Your task to perform on an android device: Set the phone to "Do not disturb". Image 0: 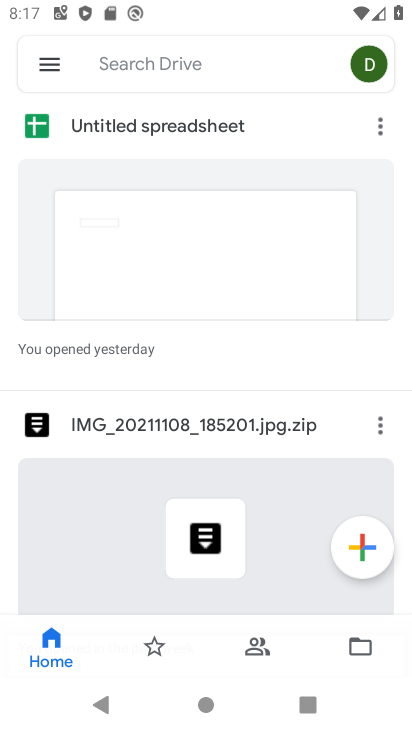
Step 0: press home button
Your task to perform on an android device: Set the phone to "Do not disturb". Image 1: 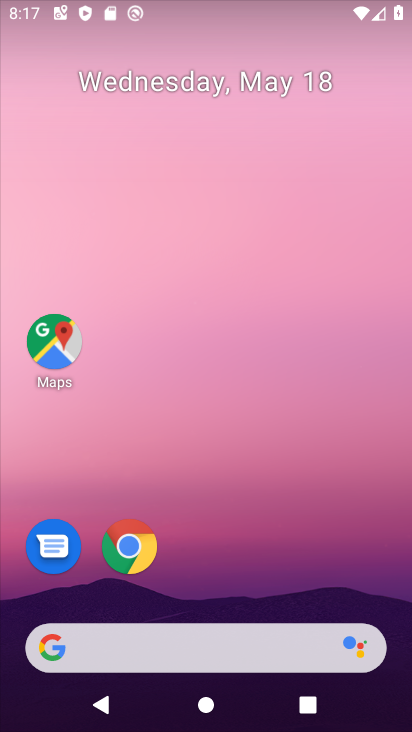
Step 1: drag from (228, 690) to (311, 204)
Your task to perform on an android device: Set the phone to "Do not disturb". Image 2: 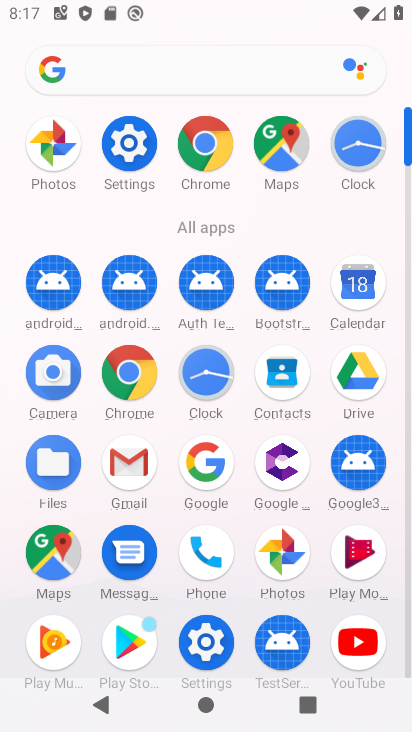
Step 2: click (127, 168)
Your task to perform on an android device: Set the phone to "Do not disturb". Image 3: 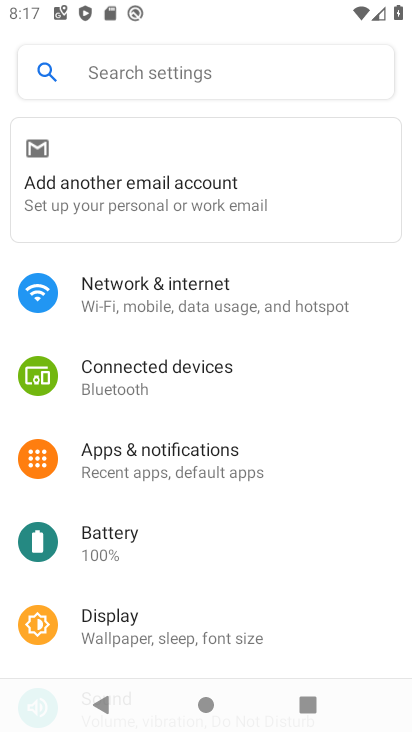
Step 3: click (135, 68)
Your task to perform on an android device: Set the phone to "Do not disturb". Image 4: 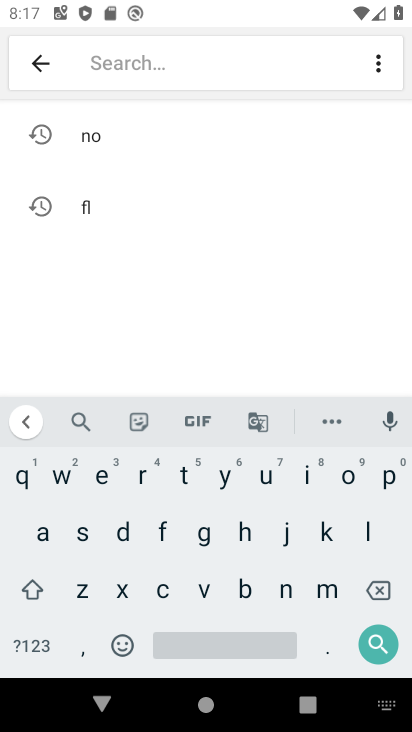
Step 4: click (120, 537)
Your task to perform on an android device: Set the phone to "Do not disturb". Image 5: 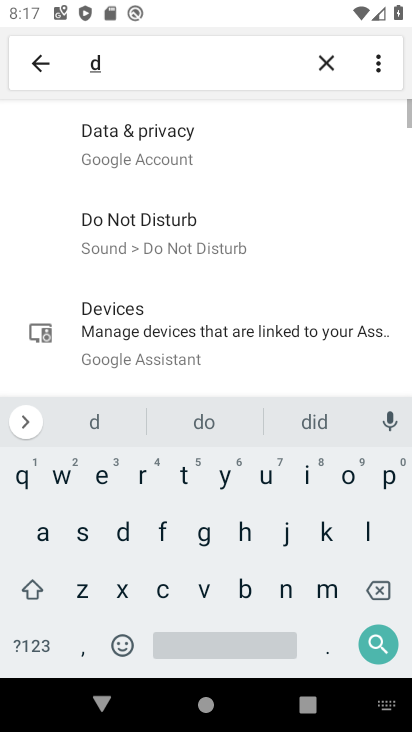
Step 5: click (353, 477)
Your task to perform on an android device: Set the phone to "Do not disturb". Image 6: 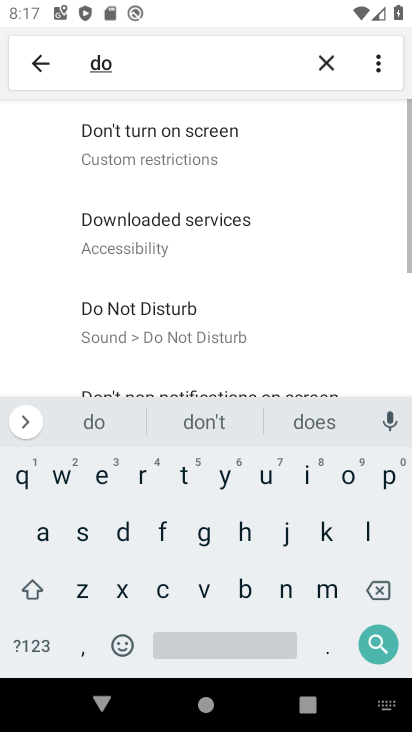
Step 6: click (379, 580)
Your task to perform on an android device: Set the phone to "Do not disturb". Image 7: 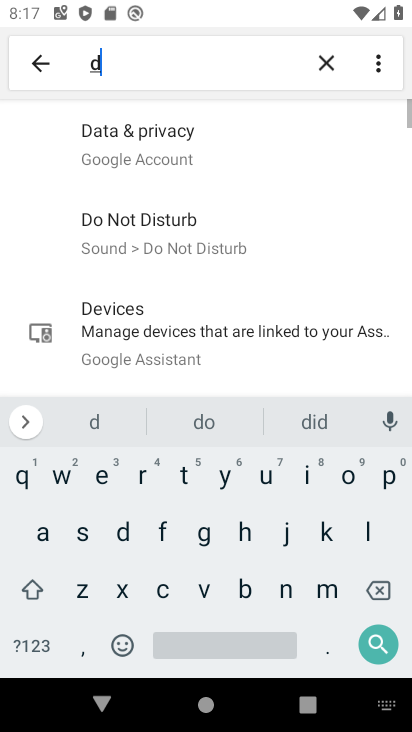
Step 7: click (280, 589)
Your task to perform on an android device: Set the phone to "Do not disturb". Image 8: 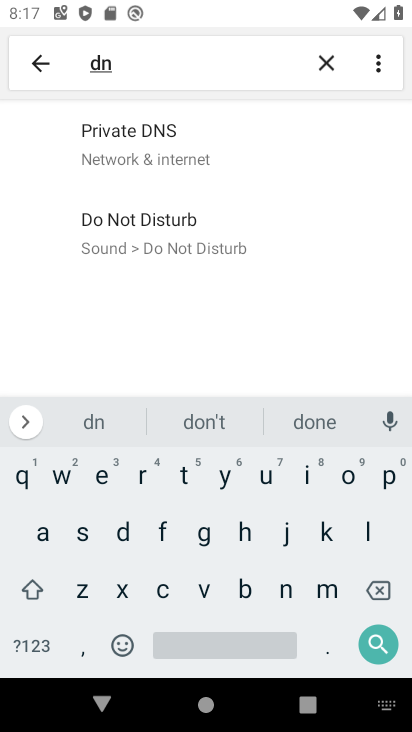
Step 8: click (144, 217)
Your task to perform on an android device: Set the phone to "Do not disturb". Image 9: 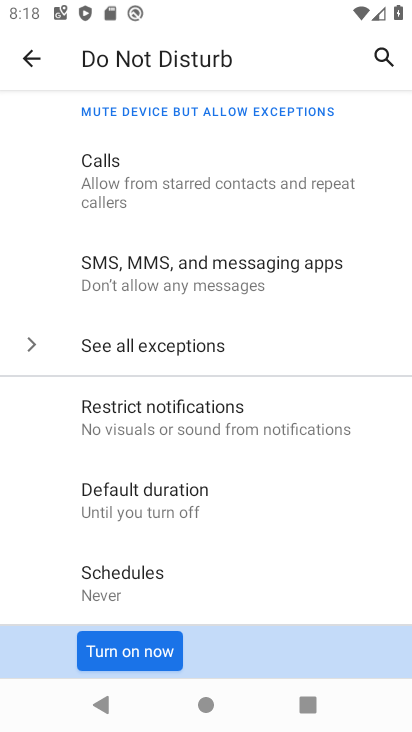
Step 9: click (120, 641)
Your task to perform on an android device: Set the phone to "Do not disturb". Image 10: 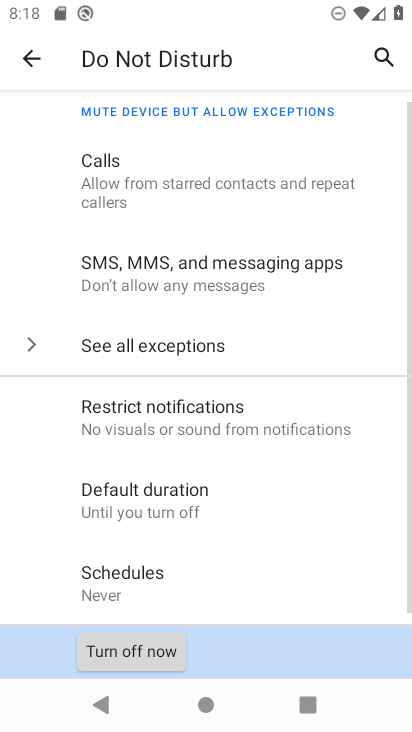
Step 10: task complete